Your task to perform on an android device: Do I have any events this weekend? Image 0: 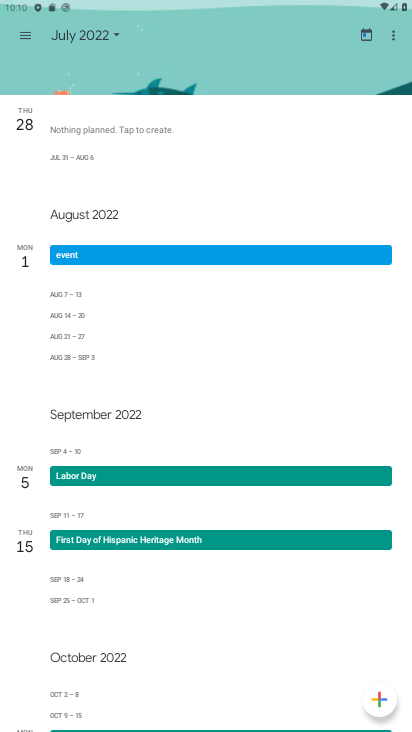
Step 0: press home button
Your task to perform on an android device: Do I have any events this weekend? Image 1: 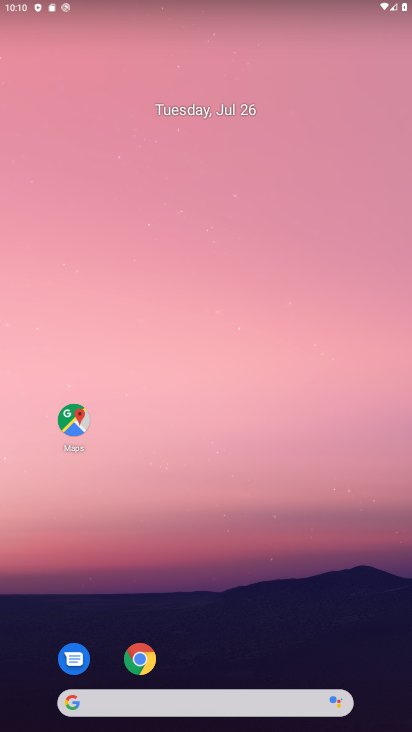
Step 1: drag from (369, 685) to (247, 1)
Your task to perform on an android device: Do I have any events this weekend? Image 2: 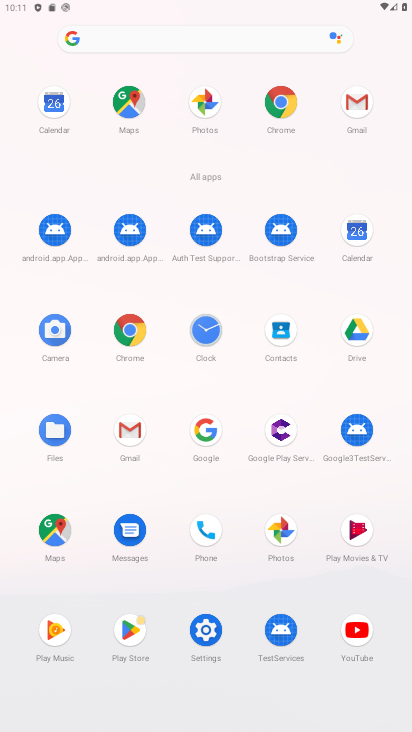
Step 2: click (357, 222)
Your task to perform on an android device: Do I have any events this weekend? Image 3: 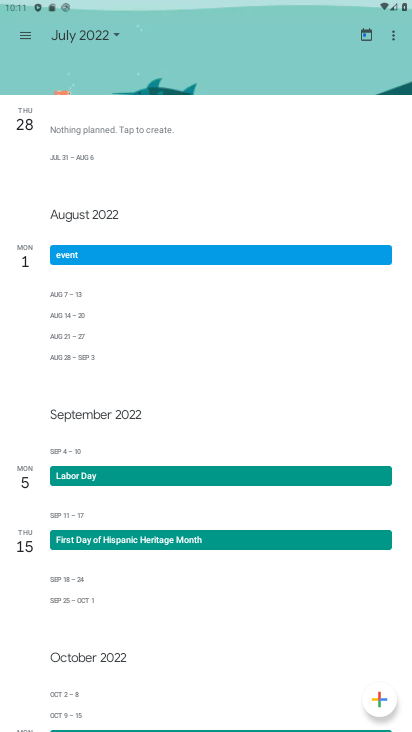
Step 3: click (115, 37)
Your task to perform on an android device: Do I have any events this weekend? Image 4: 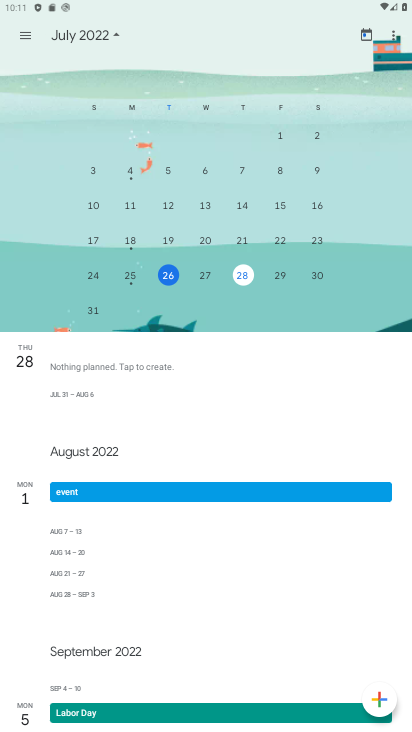
Step 4: click (321, 274)
Your task to perform on an android device: Do I have any events this weekend? Image 5: 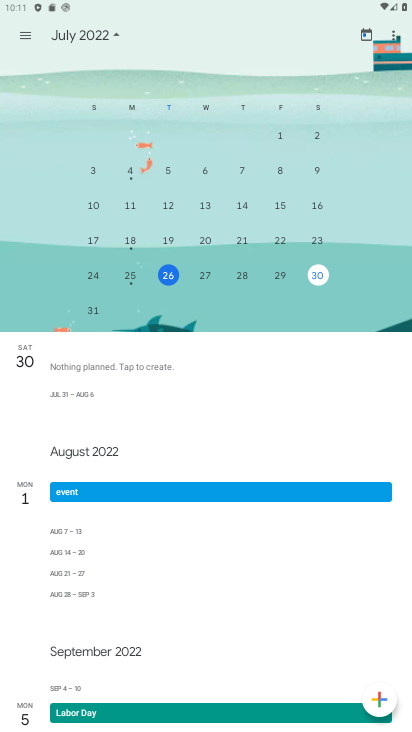
Step 5: task complete